Your task to perform on an android device: Open calendar and show me the first week of next month Image 0: 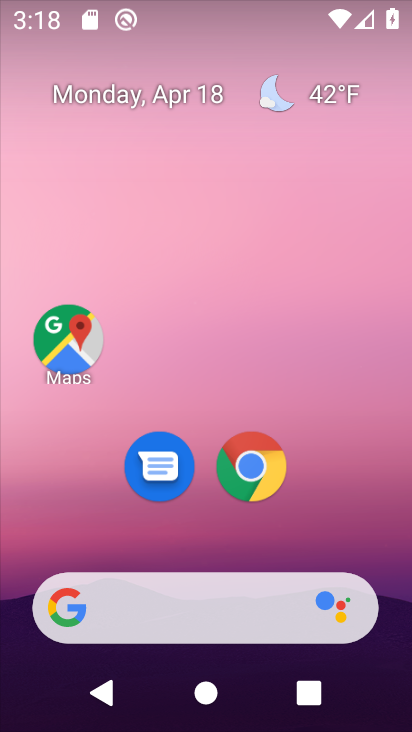
Step 0: drag from (323, 518) to (346, 96)
Your task to perform on an android device: Open calendar and show me the first week of next month Image 1: 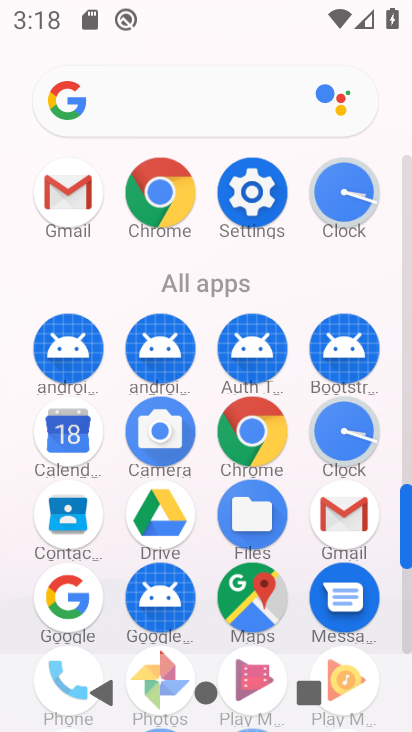
Step 1: click (75, 445)
Your task to perform on an android device: Open calendar and show me the first week of next month Image 2: 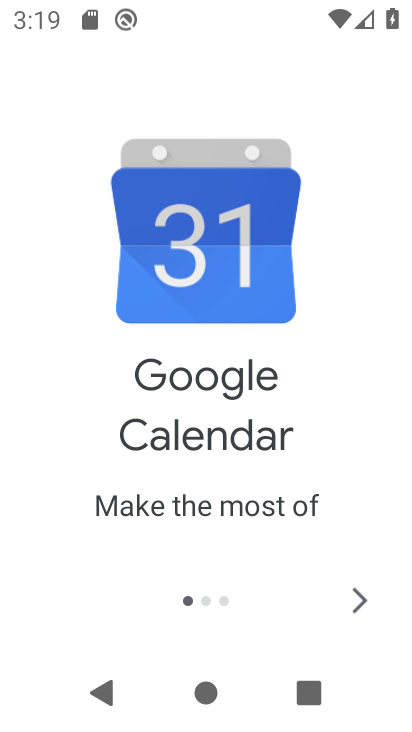
Step 2: click (344, 598)
Your task to perform on an android device: Open calendar and show me the first week of next month Image 3: 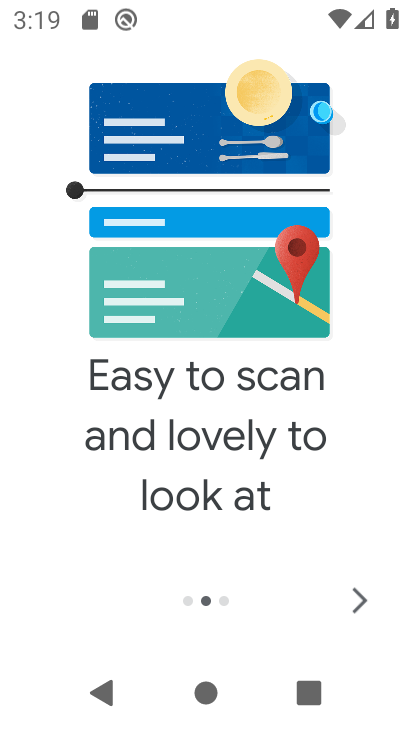
Step 3: click (354, 596)
Your task to perform on an android device: Open calendar and show me the first week of next month Image 4: 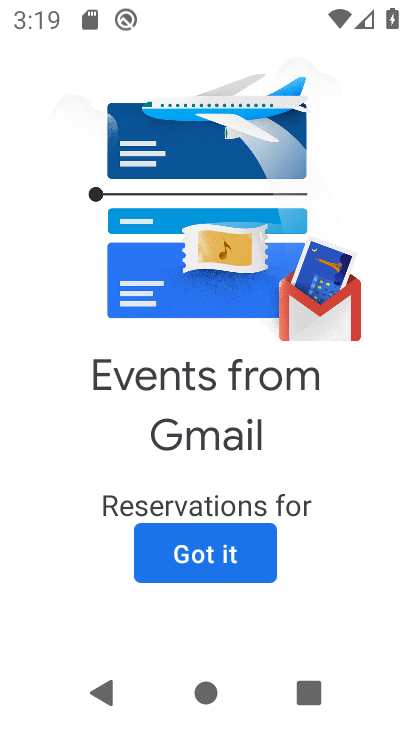
Step 4: click (213, 562)
Your task to perform on an android device: Open calendar and show me the first week of next month Image 5: 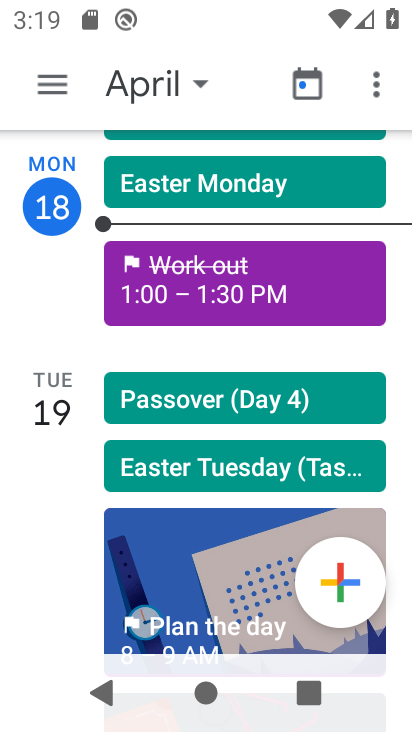
Step 5: click (160, 96)
Your task to perform on an android device: Open calendar and show me the first week of next month Image 6: 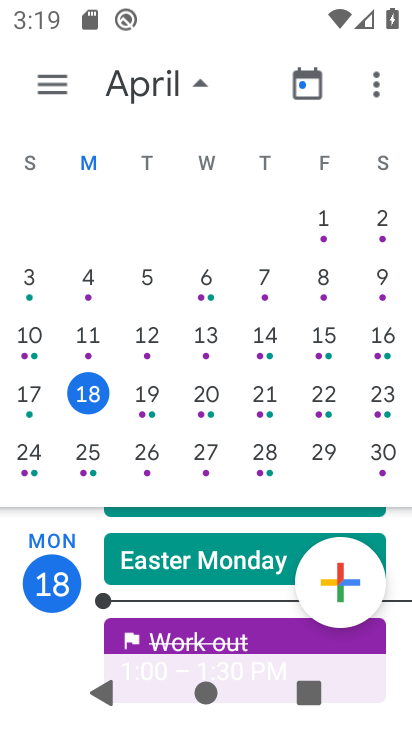
Step 6: drag from (344, 428) to (8, 437)
Your task to perform on an android device: Open calendar and show me the first week of next month Image 7: 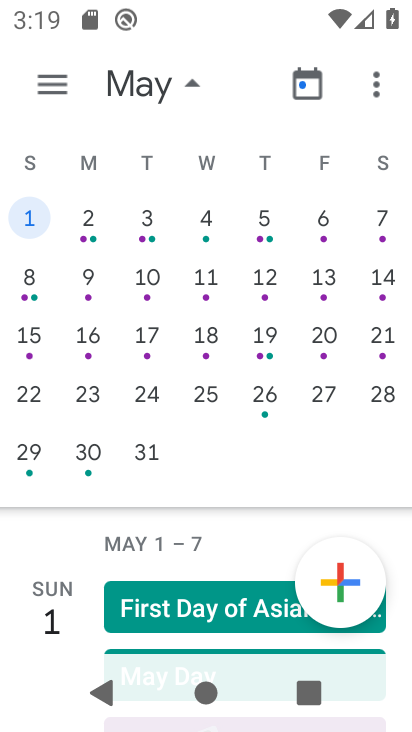
Step 7: click (300, 421)
Your task to perform on an android device: Open calendar and show me the first week of next month Image 8: 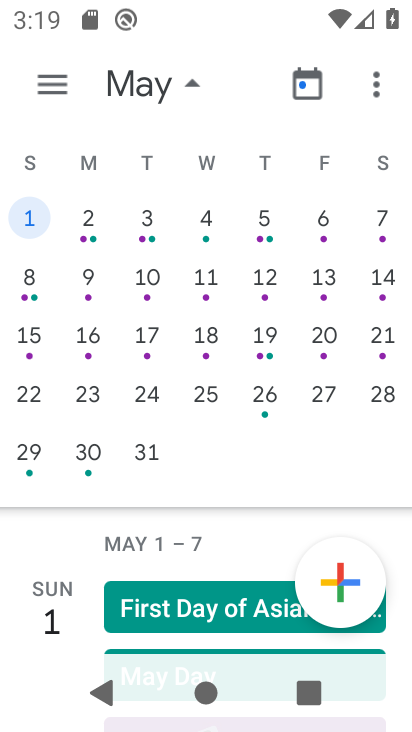
Step 8: click (97, 228)
Your task to perform on an android device: Open calendar and show me the first week of next month Image 9: 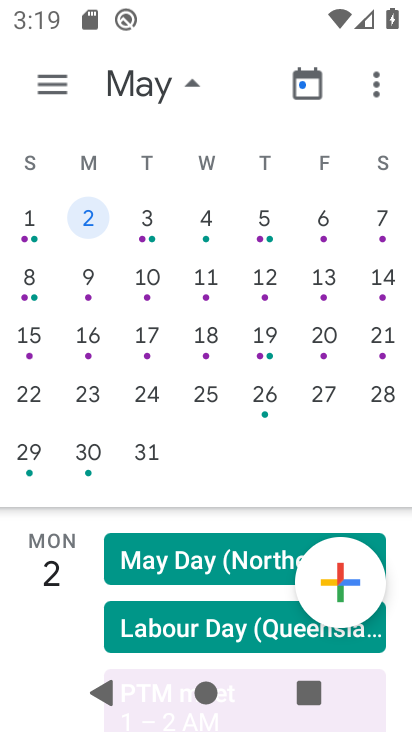
Step 9: click (152, 224)
Your task to perform on an android device: Open calendar and show me the first week of next month Image 10: 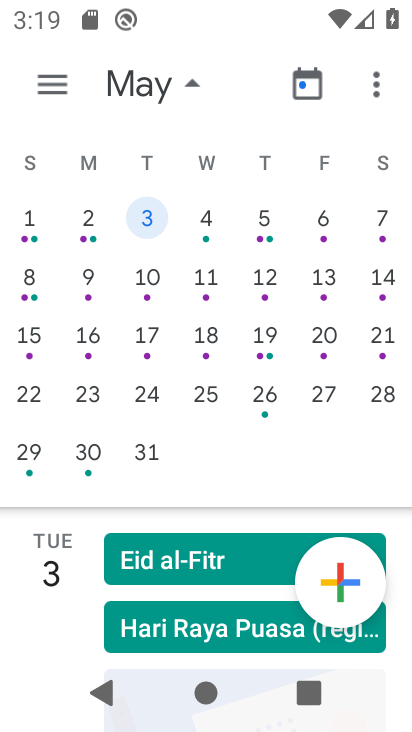
Step 10: click (198, 227)
Your task to perform on an android device: Open calendar and show me the first week of next month Image 11: 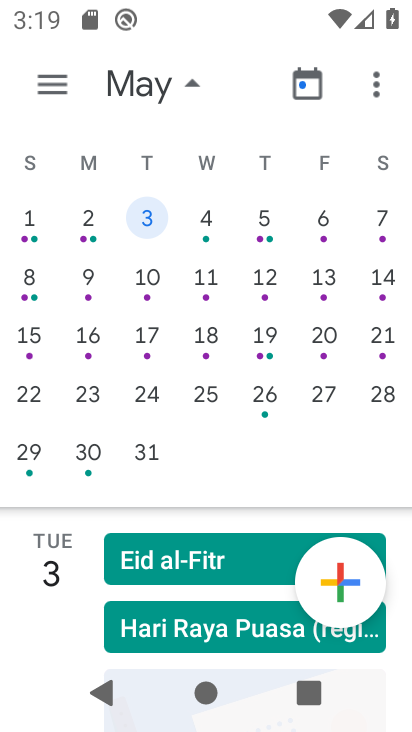
Step 11: click (240, 230)
Your task to perform on an android device: Open calendar and show me the first week of next month Image 12: 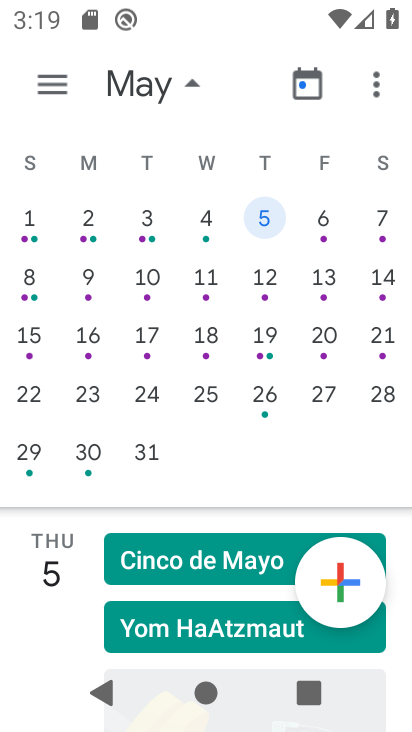
Step 12: click (320, 233)
Your task to perform on an android device: Open calendar and show me the first week of next month Image 13: 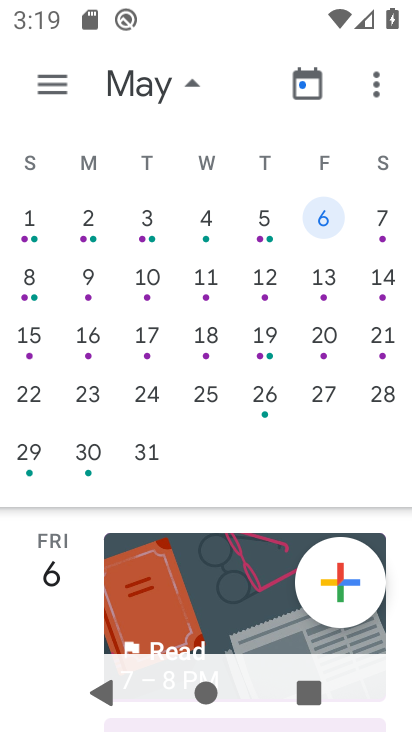
Step 13: click (386, 215)
Your task to perform on an android device: Open calendar and show me the first week of next month Image 14: 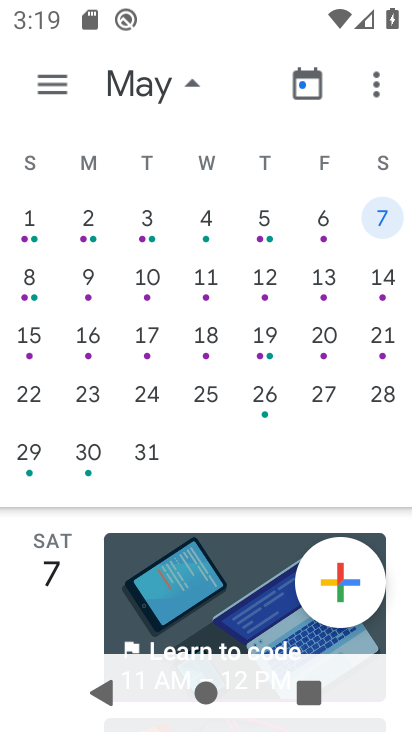
Step 14: task complete